Your task to perform on an android device: check battery use Image 0: 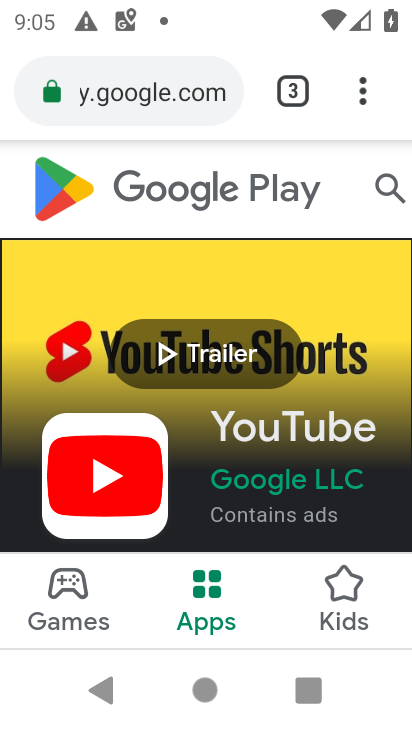
Step 0: press home button
Your task to perform on an android device: check battery use Image 1: 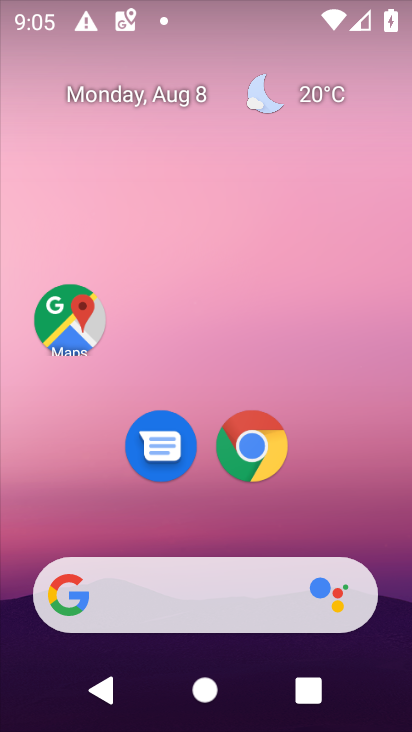
Step 1: drag from (389, 559) to (357, 49)
Your task to perform on an android device: check battery use Image 2: 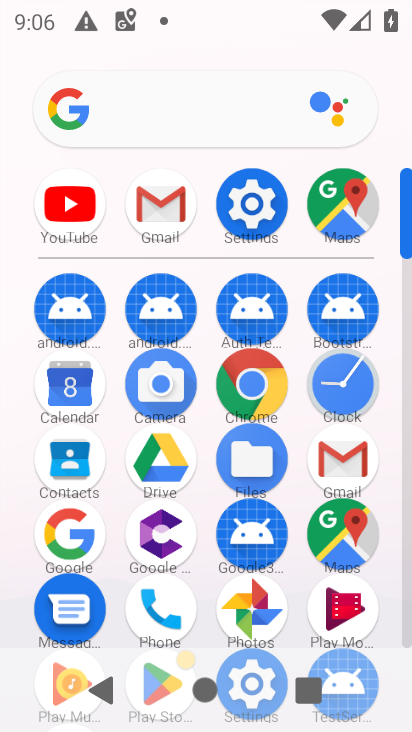
Step 2: click (405, 632)
Your task to perform on an android device: check battery use Image 3: 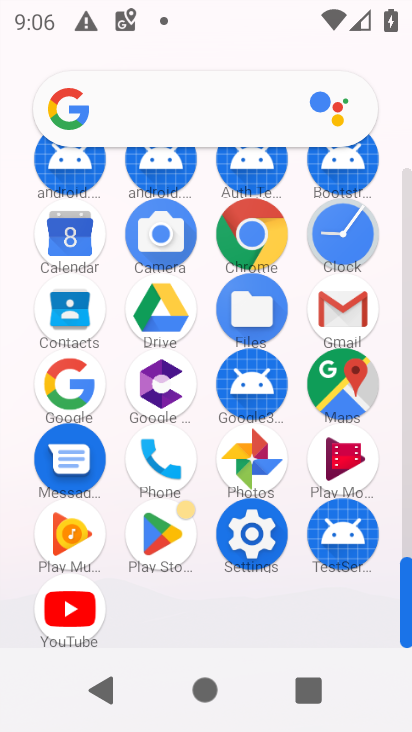
Step 3: click (250, 532)
Your task to perform on an android device: check battery use Image 4: 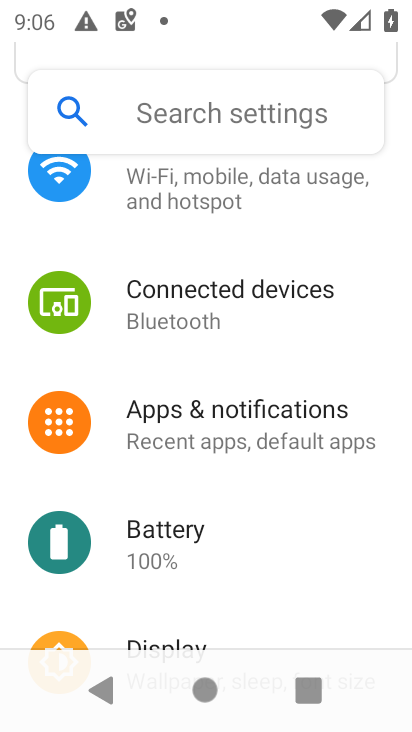
Step 4: click (176, 549)
Your task to perform on an android device: check battery use Image 5: 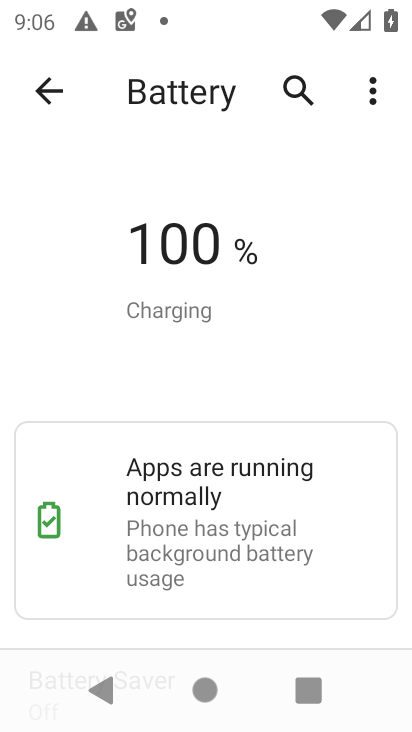
Step 5: click (365, 107)
Your task to perform on an android device: check battery use Image 6: 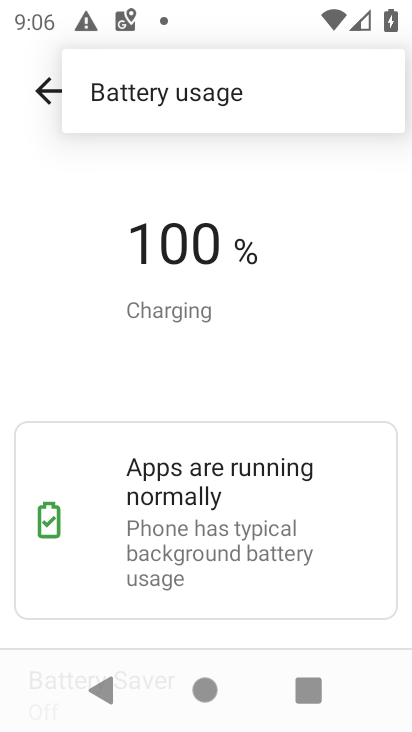
Step 6: click (125, 92)
Your task to perform on an android device: check battery use Image 7: 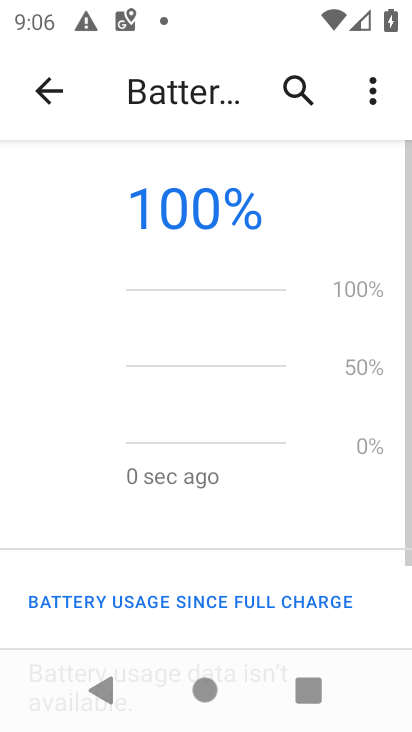
Step 7: task complete